Your task to perform on an android device: check out phone information Image 0: 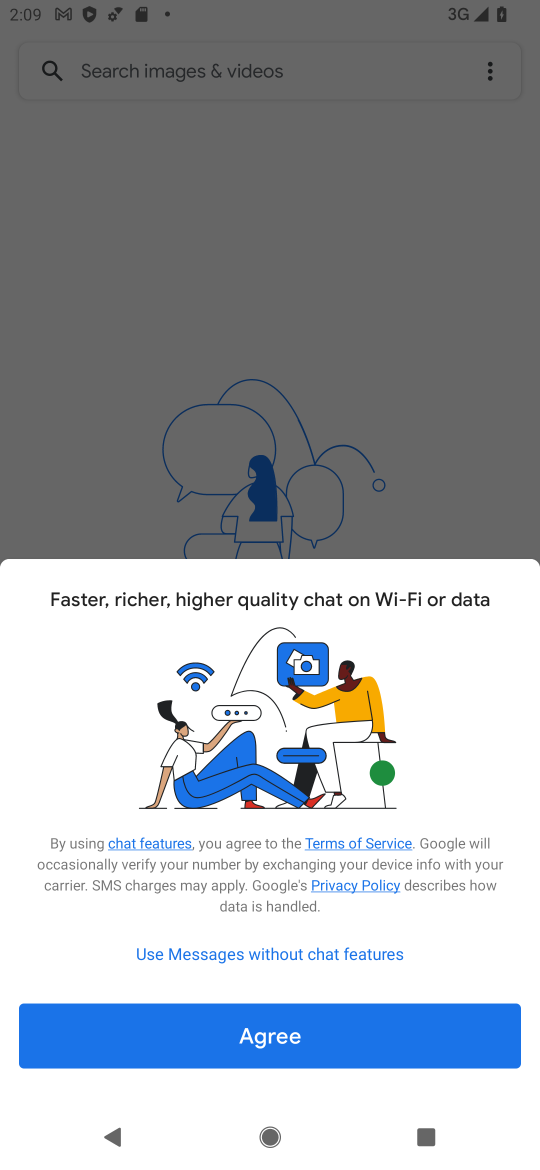
Step 0: press home button
Your task to perform on an android device: check out phone information Image 1: 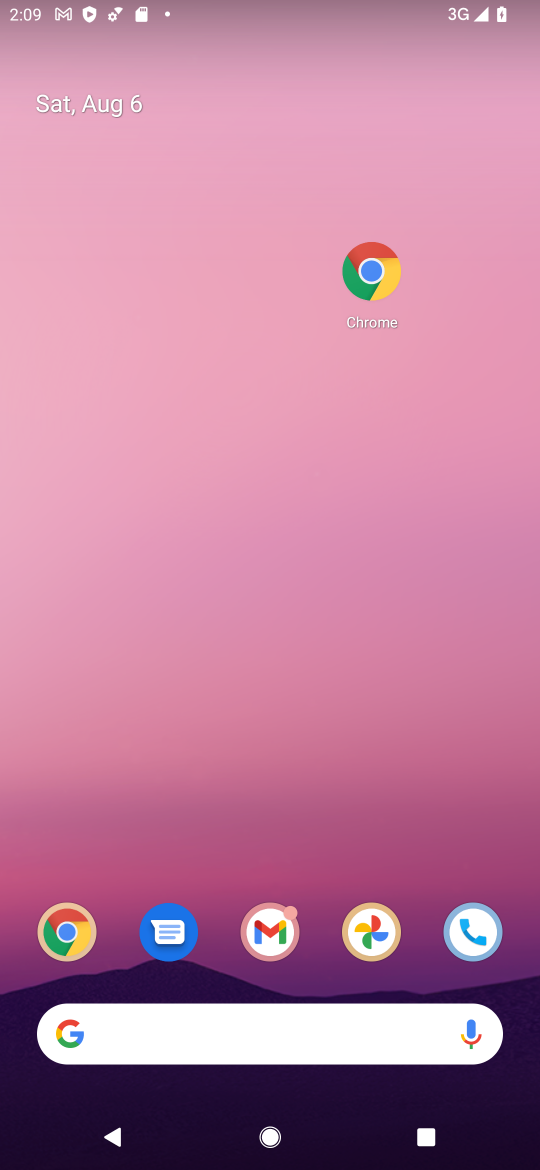
Step 1: click (473, 913)
Your task to perform on an android device: check out phone information Image 2: 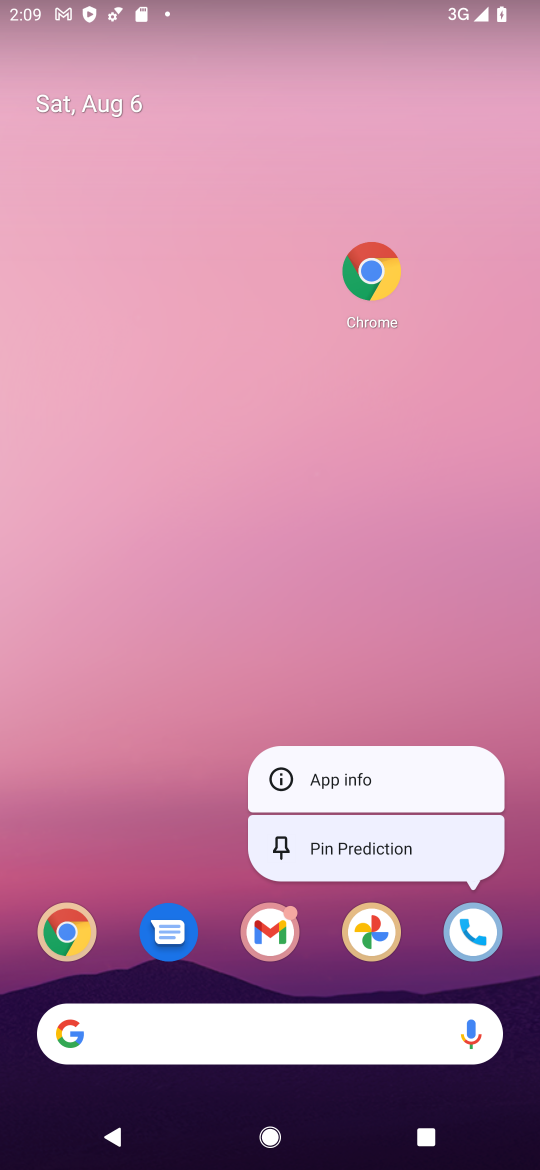
Step 2: click (445, 757)
Your task to perform on an android device: check out phone information Image 3: 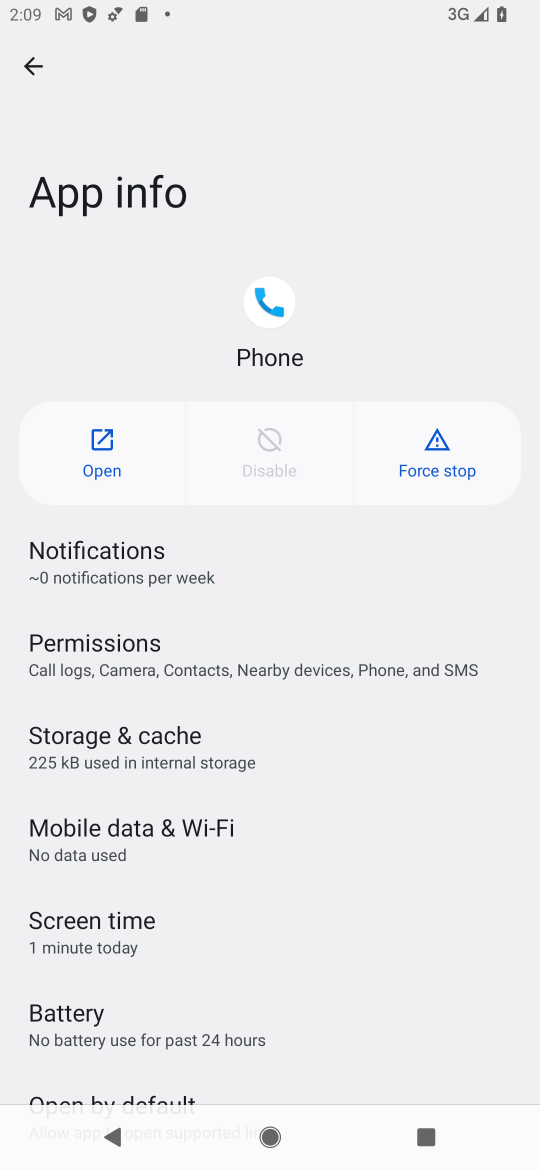
Step 3: task complete